Your task to perform on an android device: turn off improve location accuracy Image 0: 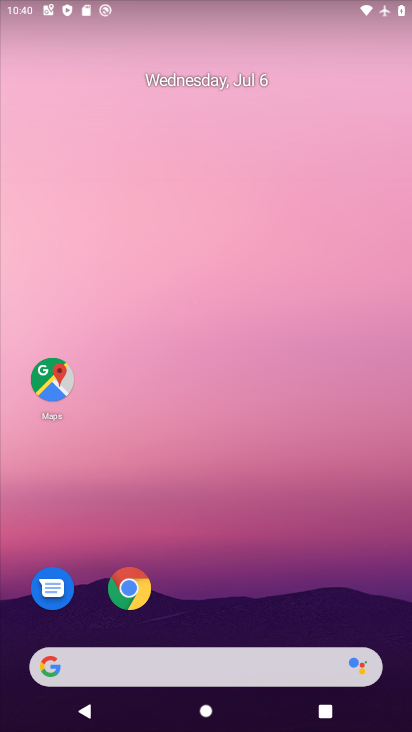
Step 0: drag from (239, 602) to (237, 345)
Your task to perform on an android device: turn off improve location accuracy Image 1: 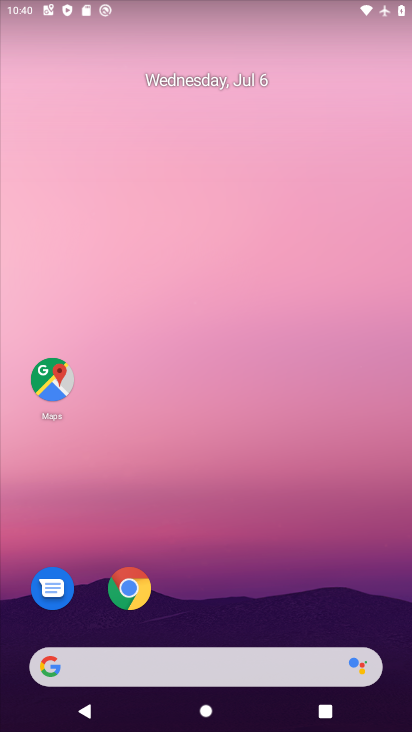
Step 1: drag from (203, 423) to (201, 106)
Your task to perform on an android device: turn off improve location accuracy Image 2: 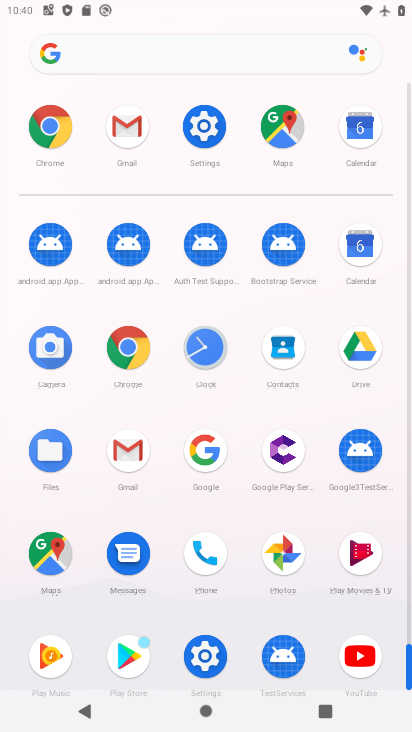
Step 2: click (202, 113)
Your task to perform on an android device: turn off improve location accuracy Image 3: 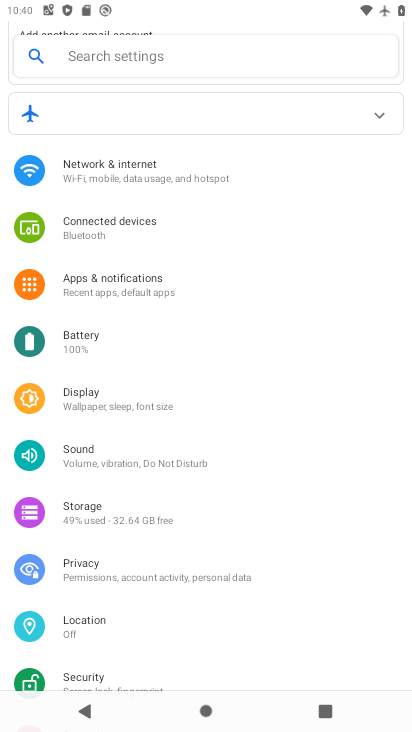
Step 3: click (109, 620)
Your task to perform on an android device: turn off improve location accuracy Image 4: 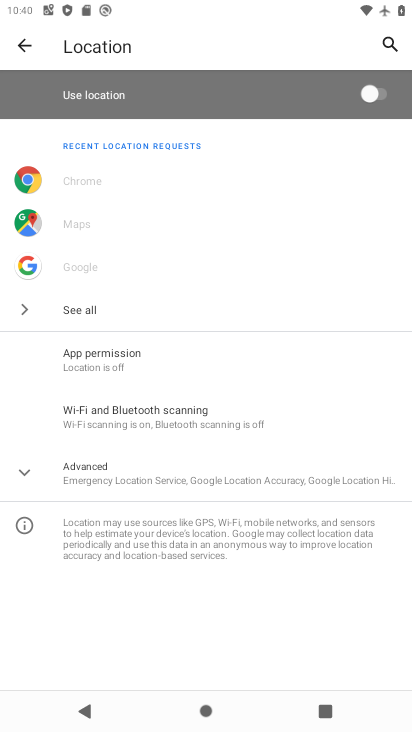
Step 4: click (191, 473)
Your task to perform on an android device: turn off improve location accuracy Image 5: 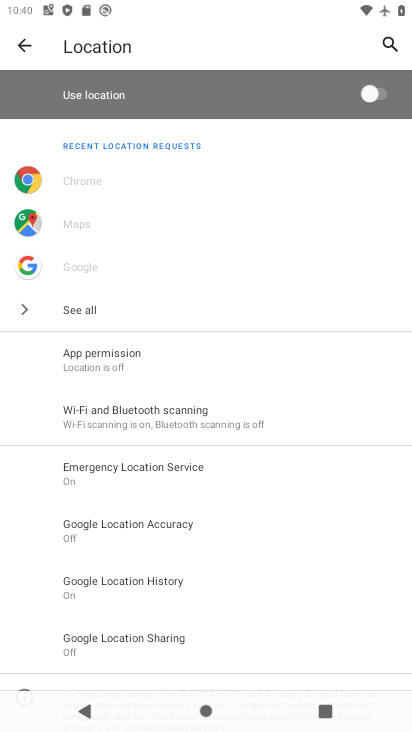
Step 5: drag from (193, 642) to (203, 522)
Your task to perform on an android device: turn off improve location accuracy Image 6: 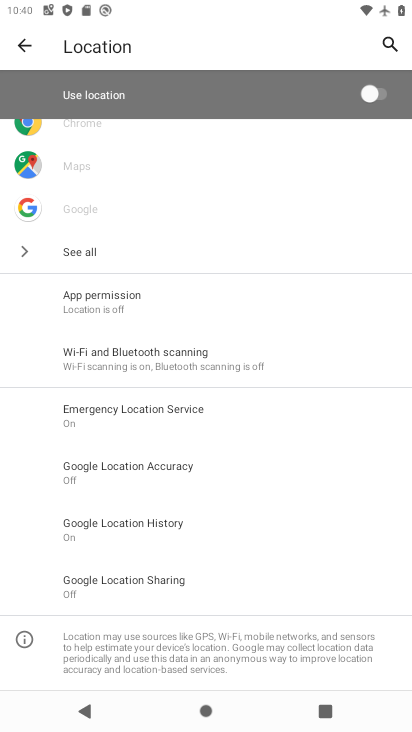
Step 6: click (191, 480)
Your task to perform on an android device: turn off improve location accuracy Image 7: 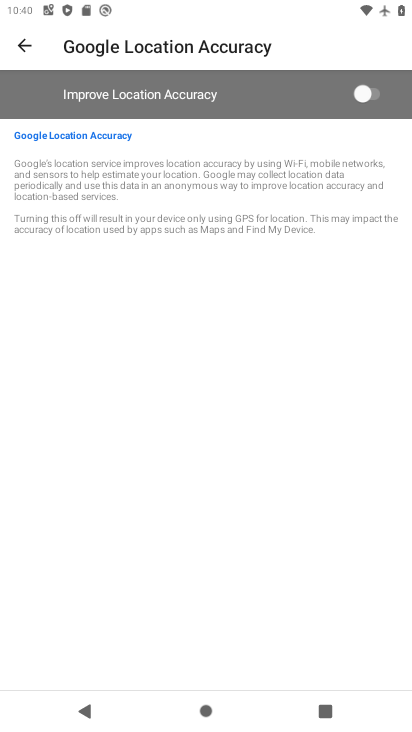
Step 7: task complete